Your task to perform on an android device: Open calendar and show me the first week of next month Image 0: 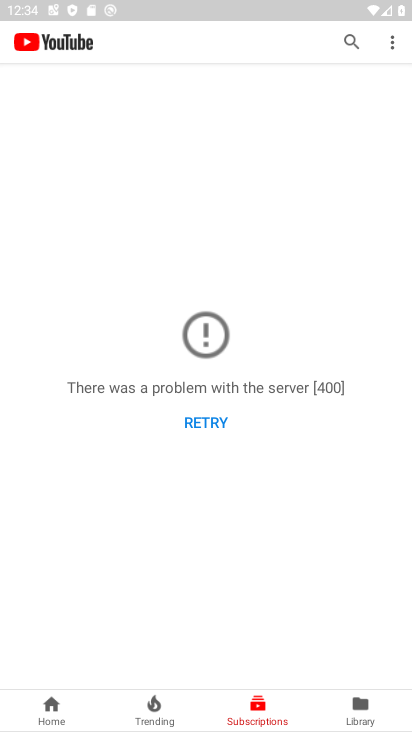
Step 0: press home button
Your task to perform on an android device: Open calendar and show me the first week of next month Image 1: 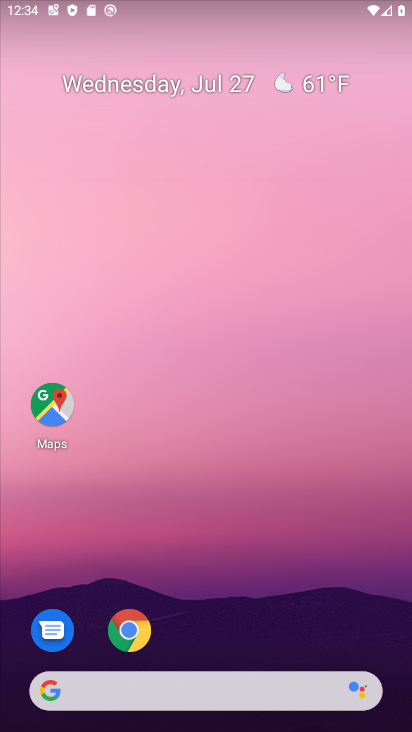
Step 1: drag from (210, 655) to (178, 118)
Your task to perform on an android device: Open calendar and show me the first week of next month Image 2: 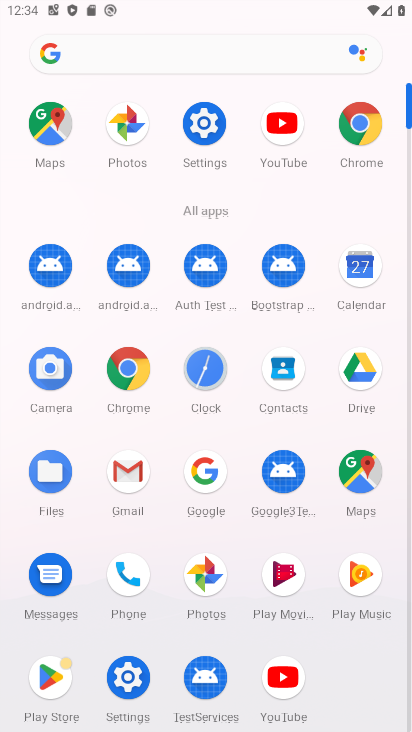
Step 2: click (356, 262)
Your task to perform on an android device: Open calendar and show me the first week of next month Image 3: 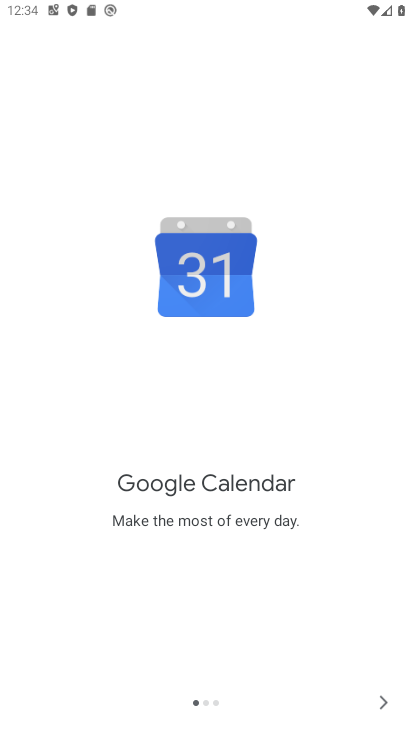
Step 3: click (384, 699)
Your task to perform on an android device: Open calendar and show me the first week of next month Image 4: 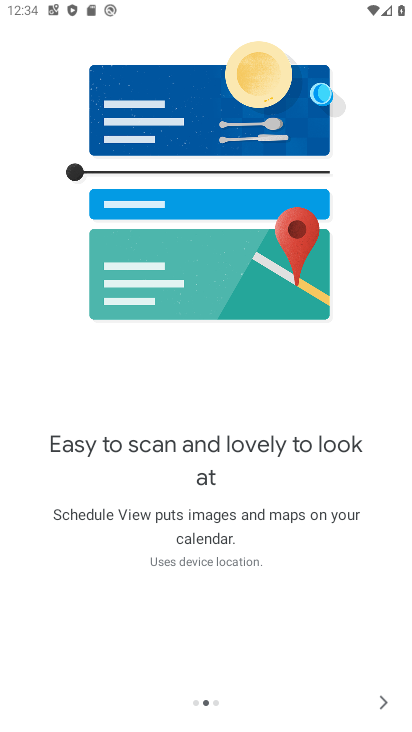
Step 4: click (384, 699)
Your task to perform on an android device: Open calendar and show me the first week of next month Image 5: 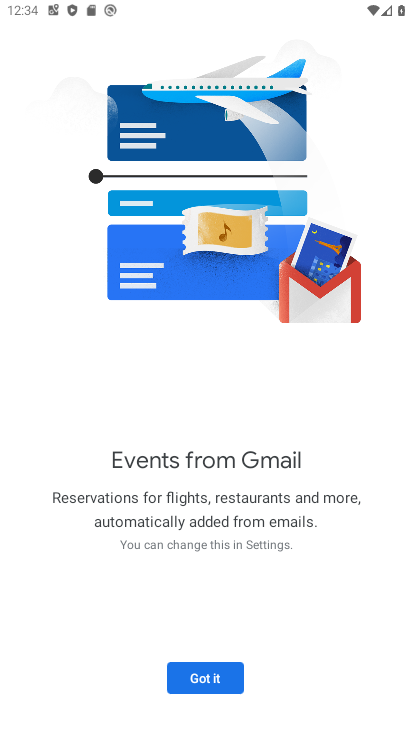
Step 5: click (201, 687)
Your task to perform on an android device: Open calendar and show me the first week of next month Image 6: 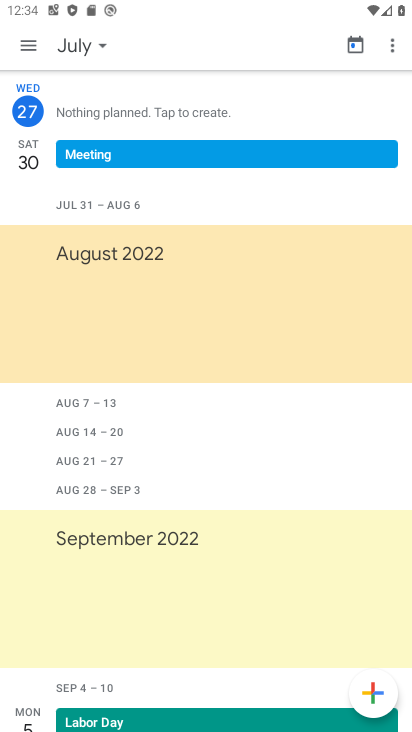
Step 6: click (82, 46)
Your task to perform on an android device: Open calendar and show me the first week of next month Image 7: 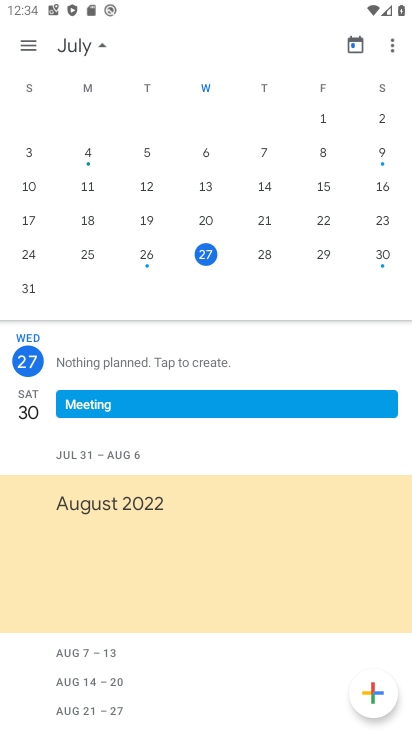
Step 7: drag from (391, 194) to (29, 245)
Your task to perform on an android device: Open calendar and show me the first week of next month Image 8: 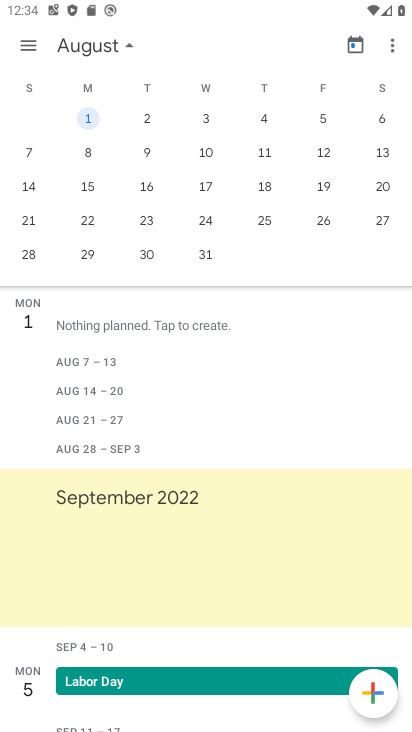
Step 8: click (87, 116)
Your task to perform on an android device: Open calendar and show me the first week of next month Image 9: 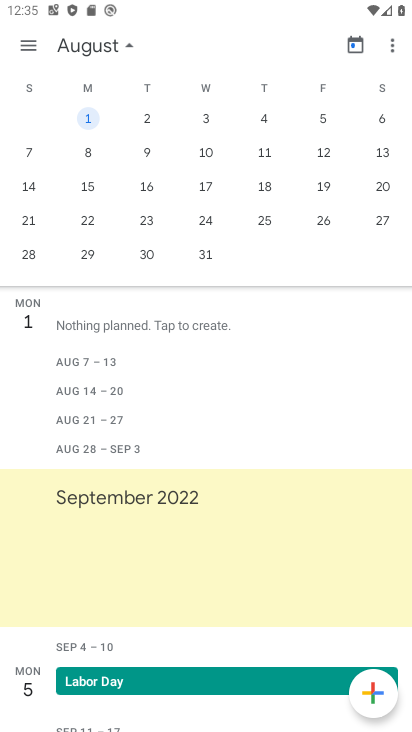
Step 9: task complete